Your task to perform on an android device: Open Google Maps Image 0: 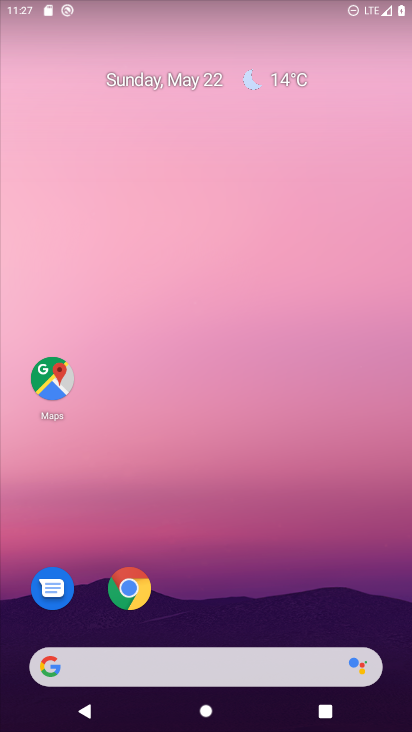
Step 0: click (72, 373)
Your task to perform on an android device: Open Google Maps Image 1: 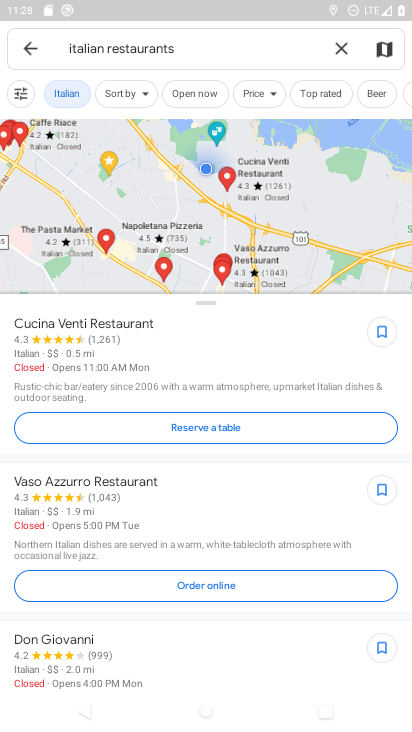
Step 1: task complete